Your task to perform on an android device: turn off sleep mode Image 0: 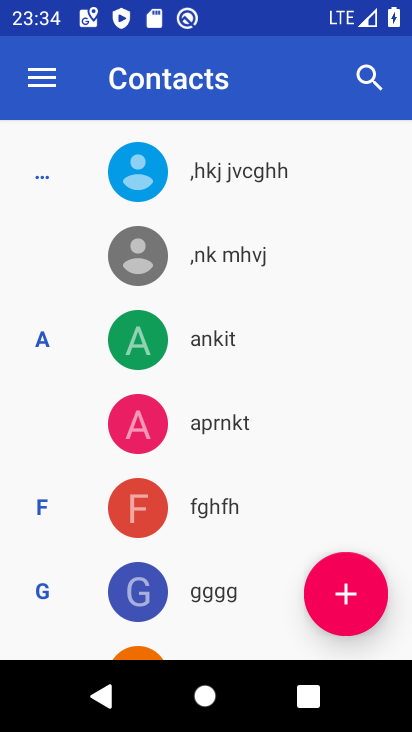
Step 0: press back button
Your task to perform on an android device: turn off sleep mode Image 1: 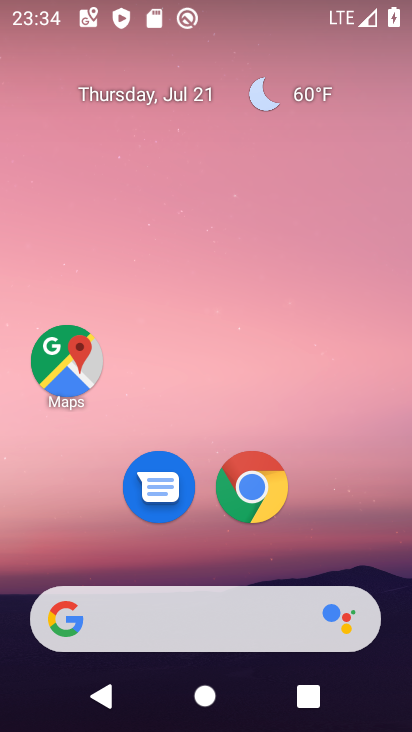
Step 1: drag from (176, 555) to (245, 64)
Your task to perform on an android device: turn off sleep mode Image 2: 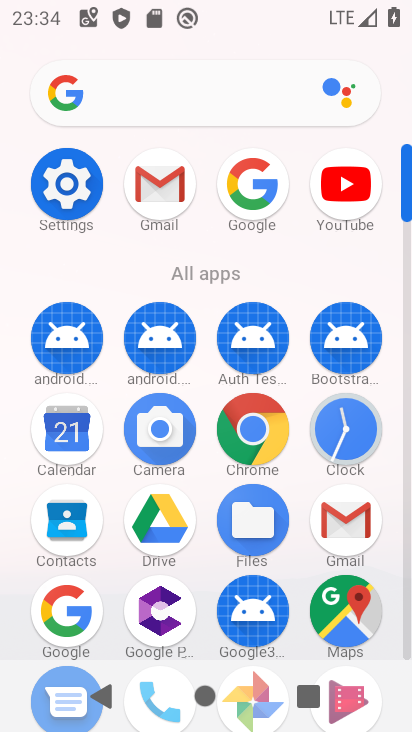
Step 2: click (72, 182)
Your task to perform on an android device: turn off sleep mode Image 3: 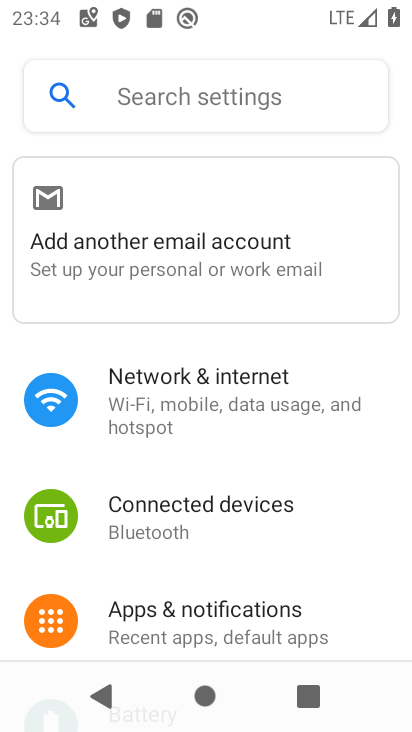
Step 3: click (163, 88)
Your task to perform on an android device: turn off sleep mode Image 4: 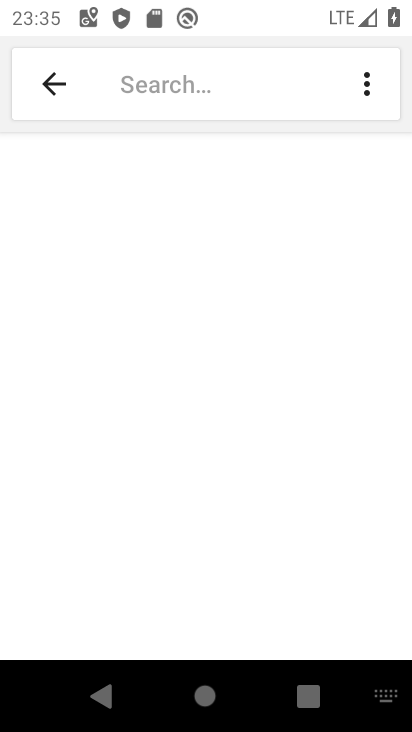
Step 4: type "sleep mode"
Your task to perform on an android device: turn off sleep mode Image 5: 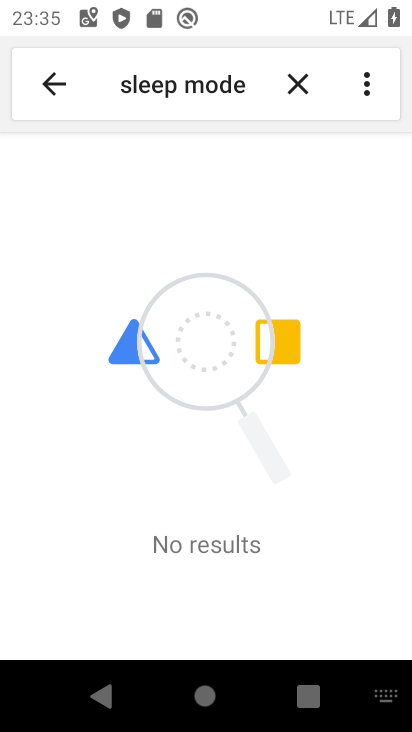
Step 5: task complete